Your task to perform on an android device: Open Google Maps and go to "Timeline" Image 0: 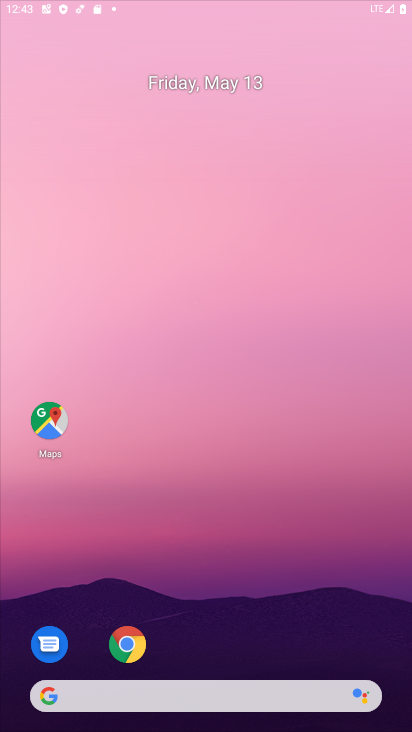
Step 0: drag from (390, 619) to (316, 76)
Your task to perform on an android device: Open Google Maps and go to "Timeline" Image 1: 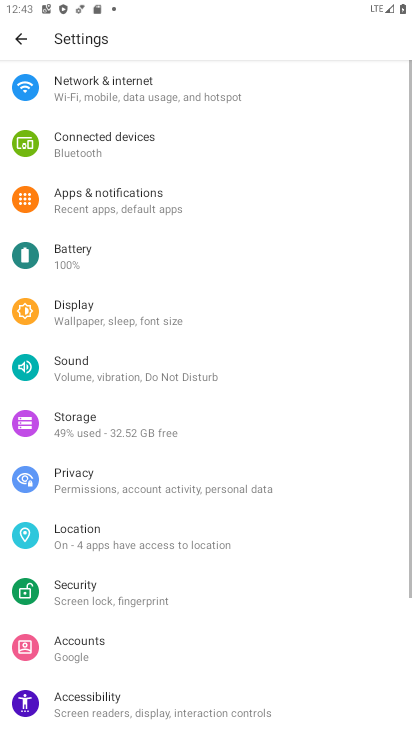
Step 1: press home button
Your task to perform on an android device: Open Google Maps and go to "Timeline" Image 2: 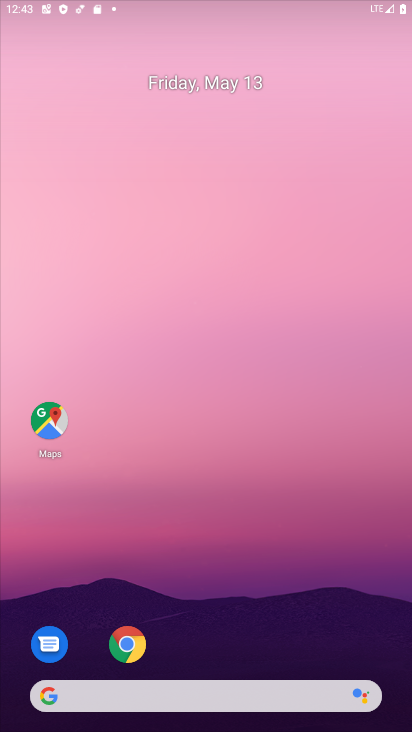
Step 2: drag from (353, 665) to (297, 119)
Your task to perform on an android device: Open Google Maps and go to "Timeline" Image 3: 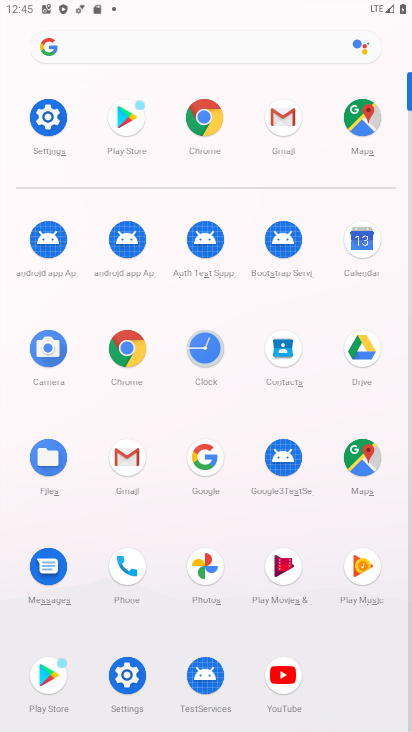
Step 3: click (357, 460)
Your task to perform on an android device: Open Google Maps and go to "Timeline" Image 4: 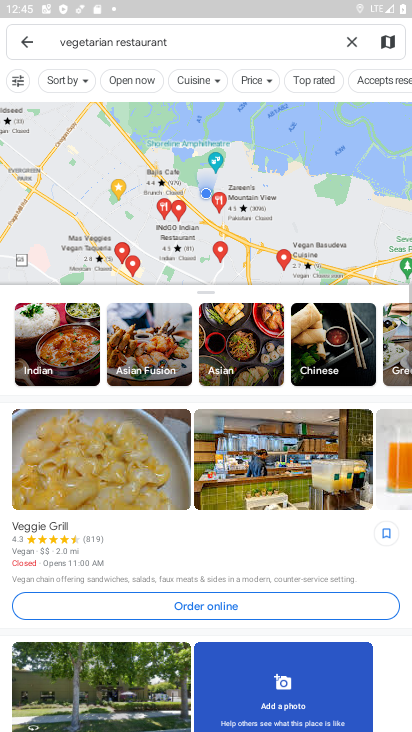
Step 4: click (351, 39)
Your task to perform on an android device: Open Google Maps and go to "Timeline" Image 5: 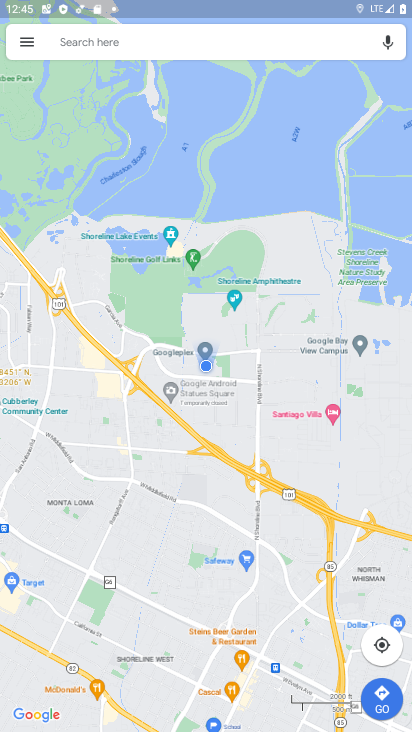
Step 5: click (22, 46)
Your task to perform on an android device: Open Google Maps and go to "Timeline" Image 6: 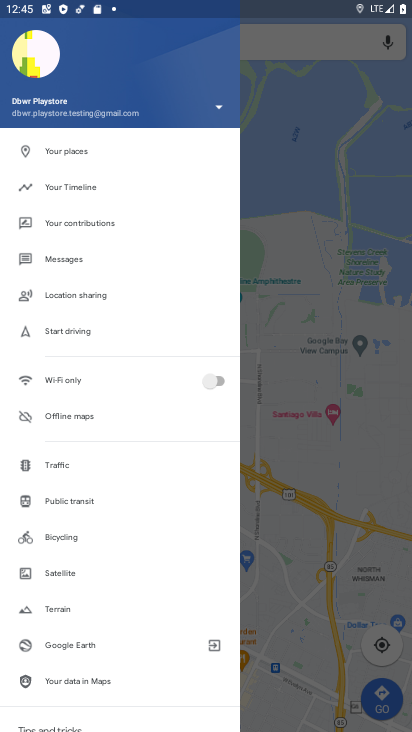
Step 6: click (85, 186)
Your task to perform on an android device: Open Google Maps and go to "Timeline" Image 7: 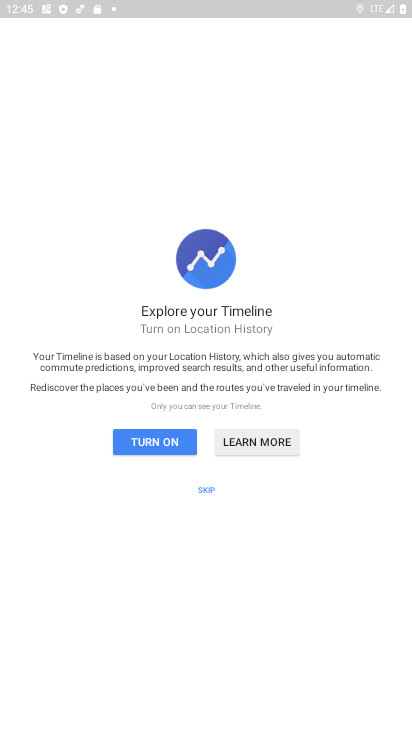
Step 7: task complete